Your task to perform on an android device: Open internet settings Image 0: 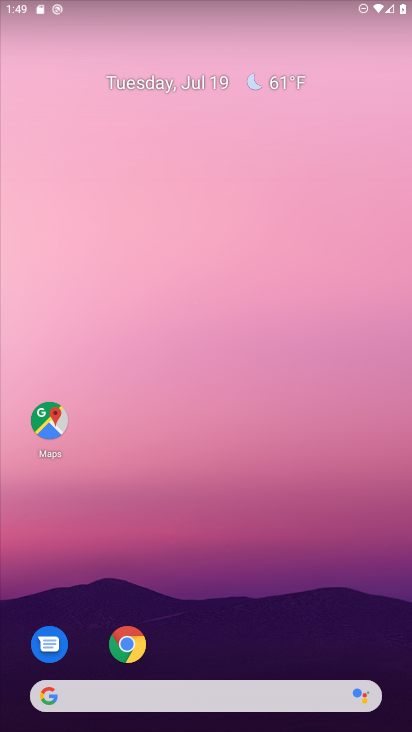
Step 0: drag from (186, 679) to (188, 158)
Your task to perform on an android device: Open internet settings Image 1: 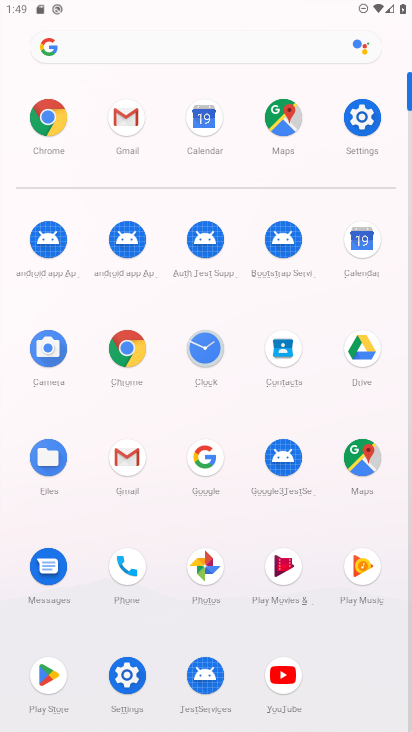
Step 1: click (358, 130)
Your task to perform on an android device: Open internet settings Image 2: 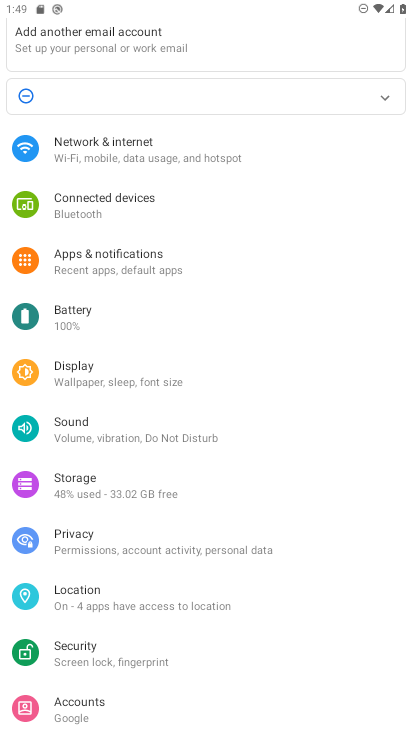
Step 2: click (176, 158)
Your task to perform on an android device: Open internet settings Image 3: 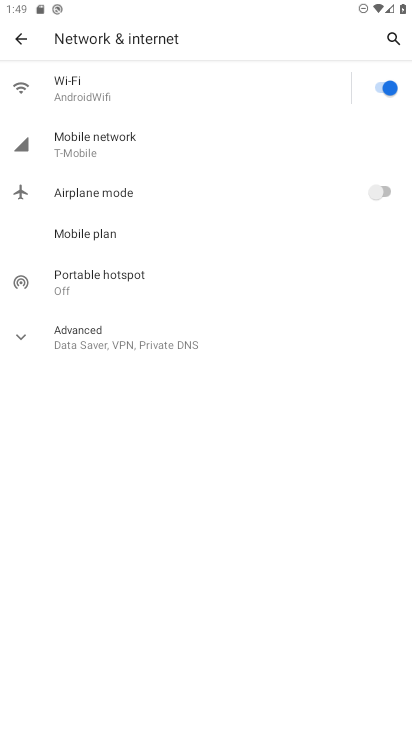
Step 3: click (123, 144)
Your task to perform on an android device: Open internet settings Image 4: 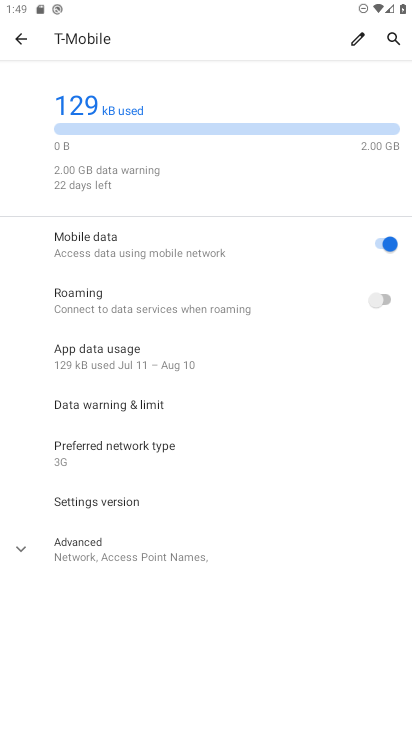
Step 4: task complete